Your task to perform on an android device: Open Google Chrome and click the shortcut for Amazon.com Image 0: 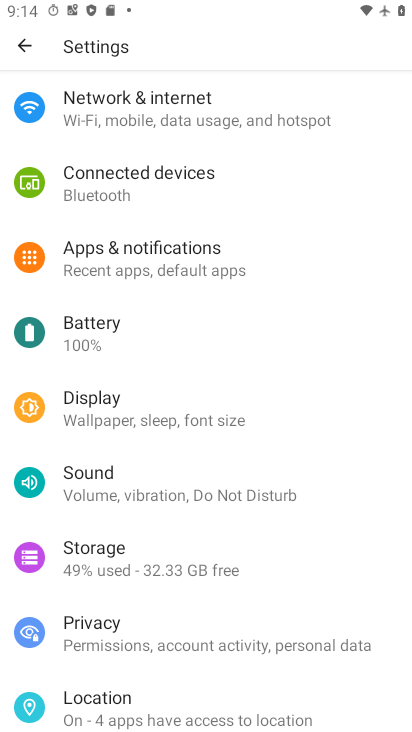
Step 0: press home button
Your task to perform on an android device: Open Google Chrome and click the shortcut for Amazon.com Image 1: 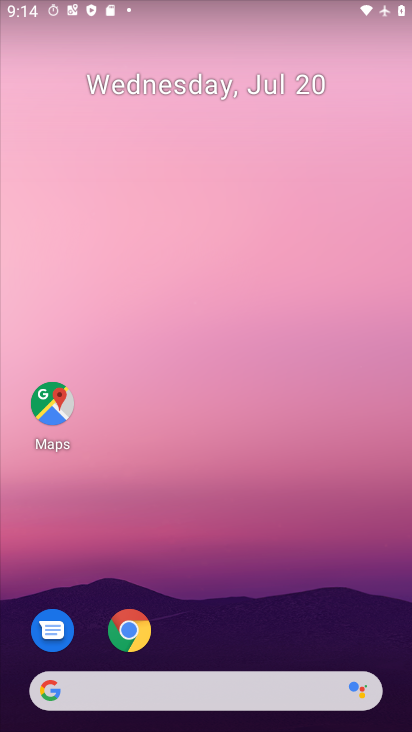
Step 1: drag from (244, 665) to (233, 336)
Your task to perform on an android device: Open Google Chrome and click the shortcut for Amazon.com Image 2: 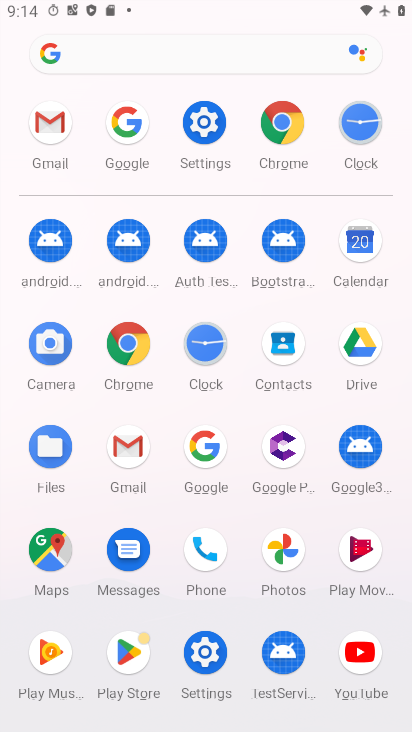
Step 2: click (120, 358)
Your task to perform on an android device: Open Google Chrome and click the shortcut for Amazon.com Image 3: 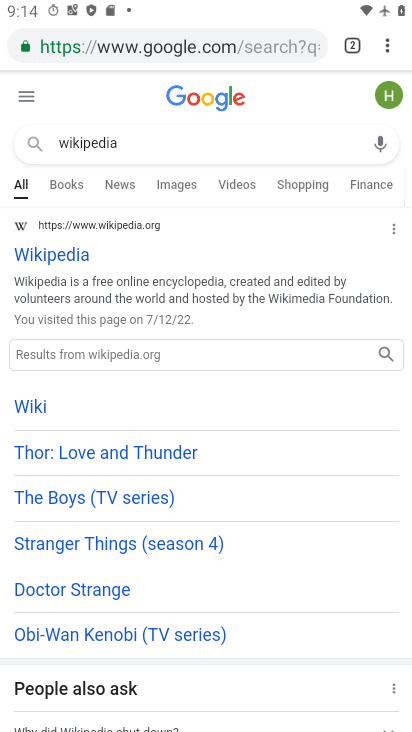
Step 3: drag from (162, 521) to (168, 181)
Your task to perform on an android device: Open Google Chrome and click the shortcut for Amazon.com Image 4: 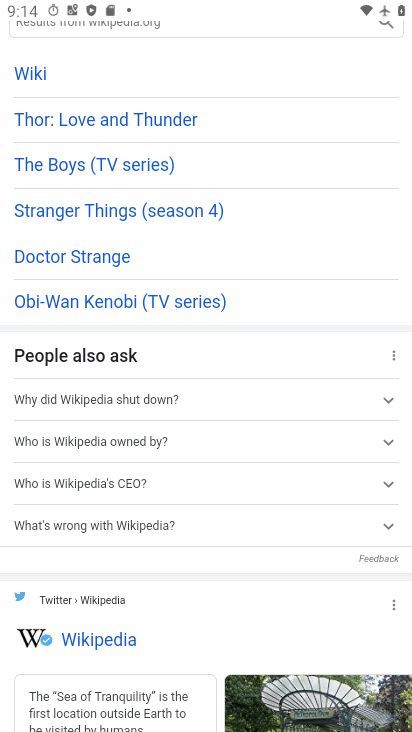
Step 4: drag from (230, 205) to (249, 621)
Your task to perform on an android device: Open Google Chrome and click the shortcut for Amazon.com Image 5: 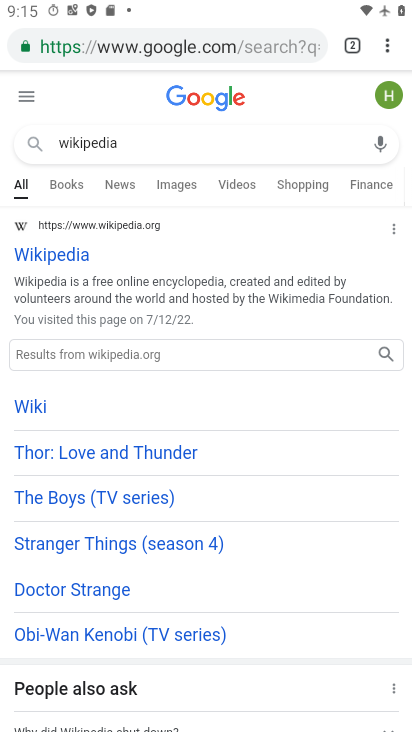
Step 5: drag from (355, 41) to (343, 304)
Your task to perform on an android device: Open Google Chrome and click the shortcut for Amazon.com Image 6: 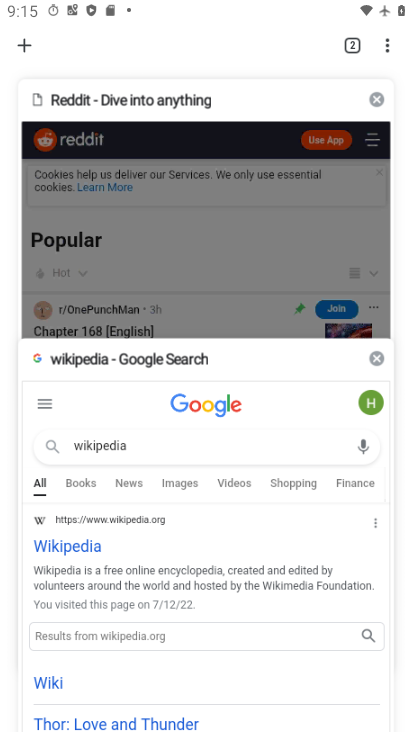
Step 6: click (22, 46)
Your task to perform on an android device: Open Google Chrome and click the shortcut for Amazon.com Image 7: 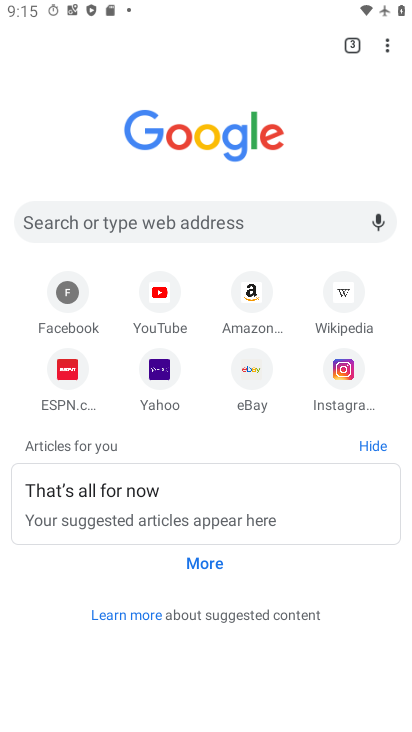
Step 7: click (238, 313)
Your task to perform on an android device: Open Google Chrome and click the shortcut for Amazon.com Image 8: 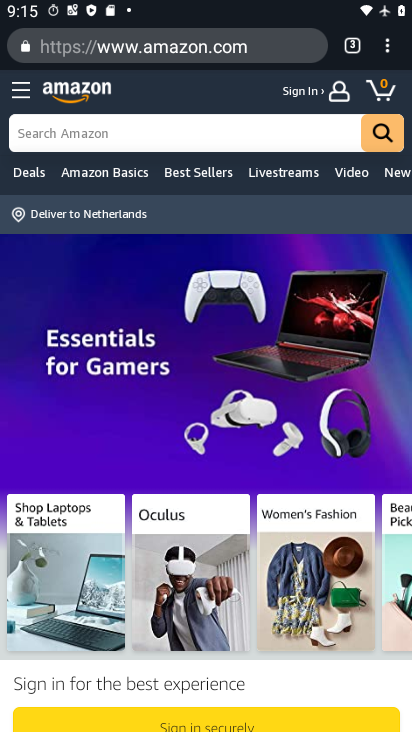
Step 8: task complete